Your task to perform on an android device: Open accessibility settings Image 0: 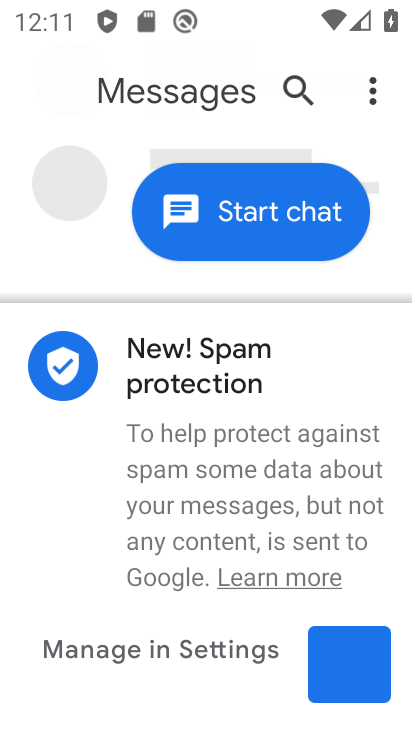
Step 0: press home button
Your task to perform on an android device: Open accessibility settings Image 1: 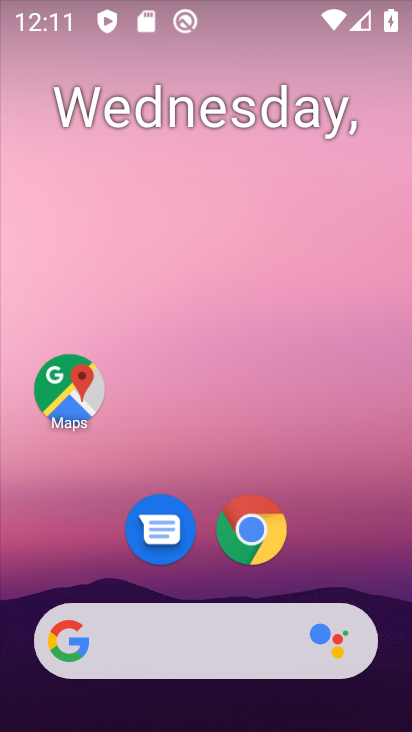
Step 1: drag from (397, 645) to (355, 183)
Your task to perform on an android device: Open accessibility settings Image 2: 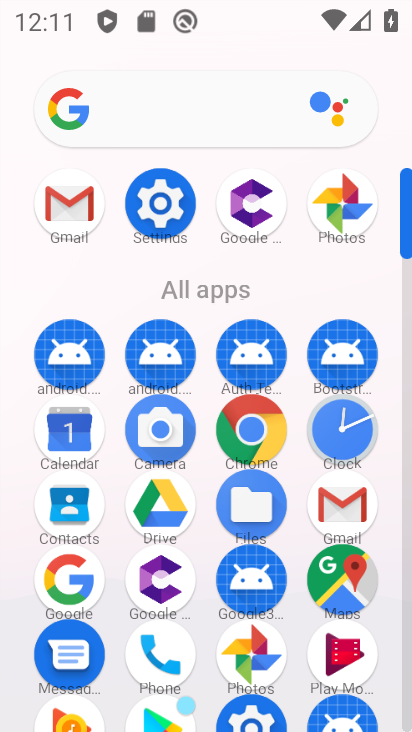
Step 2: click (409, 676)
Your task to perform on an android device: Open accessibility settings Image 3: 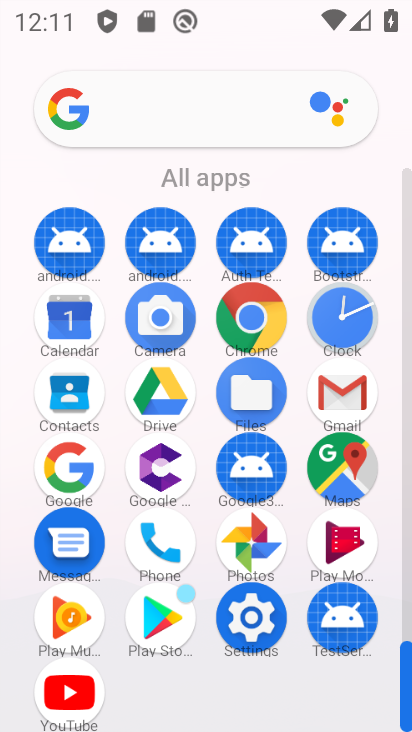
Step 3: click (252, 618)
Your task to perform on an android device: Open accessibility settings Image 4: 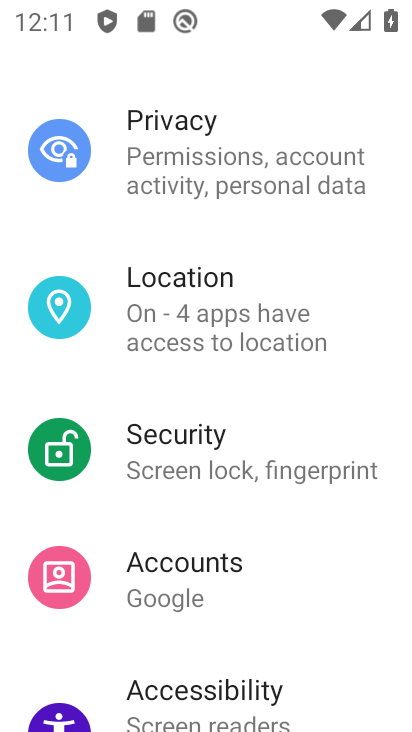
Step 4: drag from (330, 673) to (326, 256)
Your task to perform on an android device: Open accessibility settings Image 5: 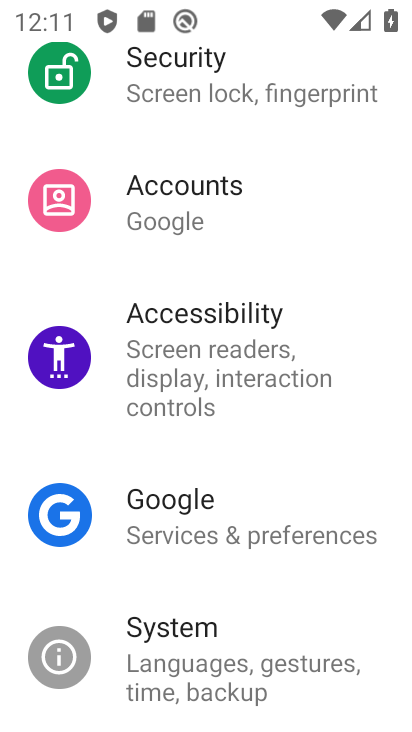
Step 5: click (174, 350)
Your task to perform on an android device: Open accessibility settings Image 6: 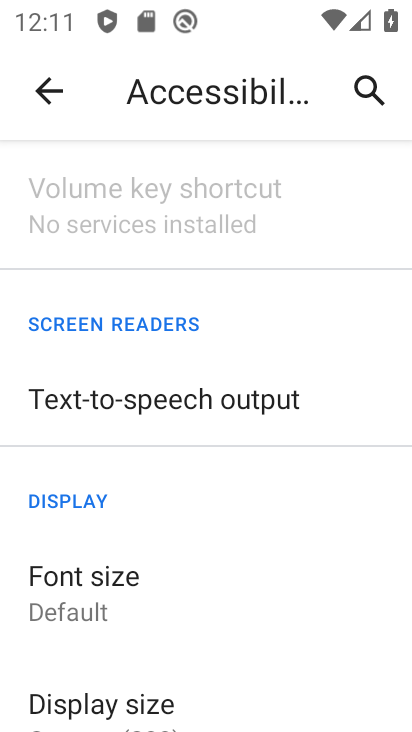
Step 6: task complete